Your task to perform on an android device: Go to ESPN.com Image 0: 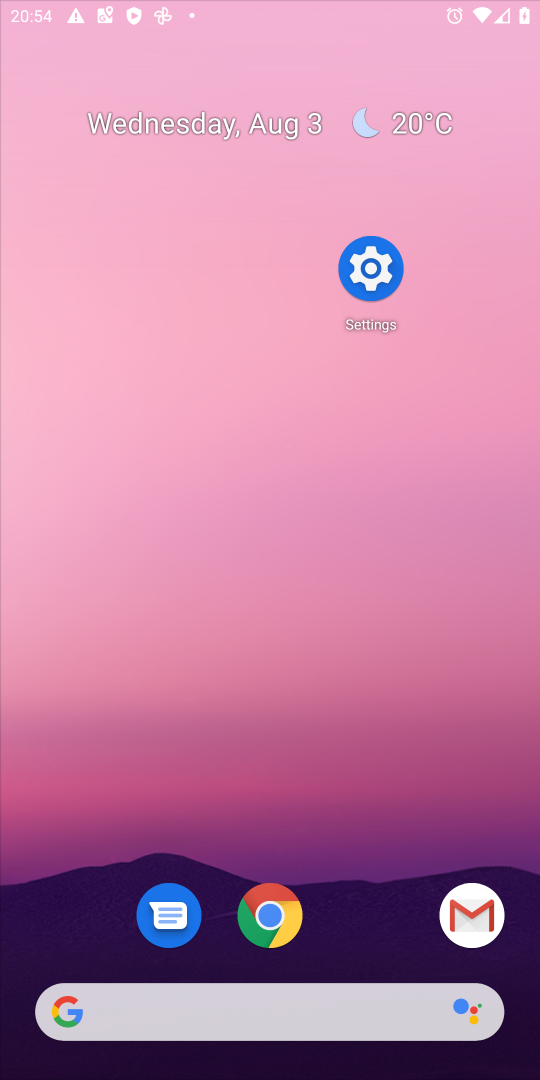
Step 0: press home button
Your task to perform on an android device: Go to ESPN.com Image 1: 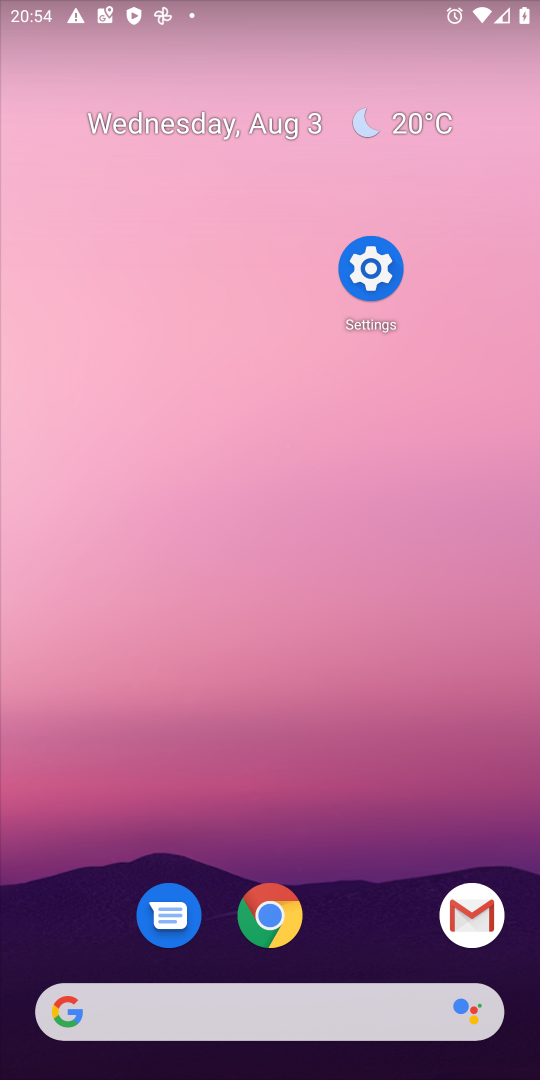
Step 1: drag from (329, 1017) to (232, 431)
Your task to perform on an android device: Go to ESPN.com Image 2: 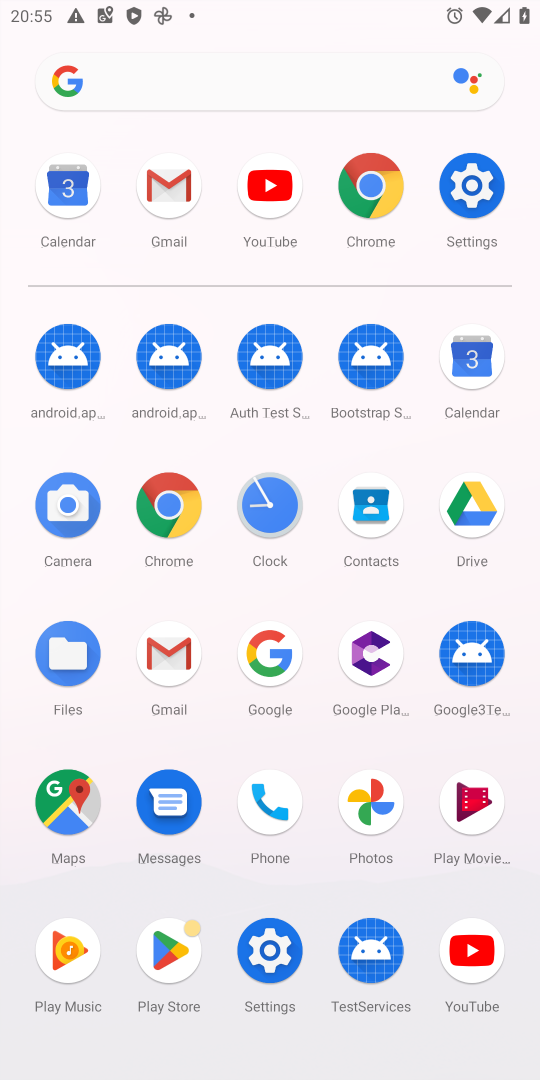
Step 2: click (378, 205)
Your task to perform on an android device: Go to ESPN.com Image 3: 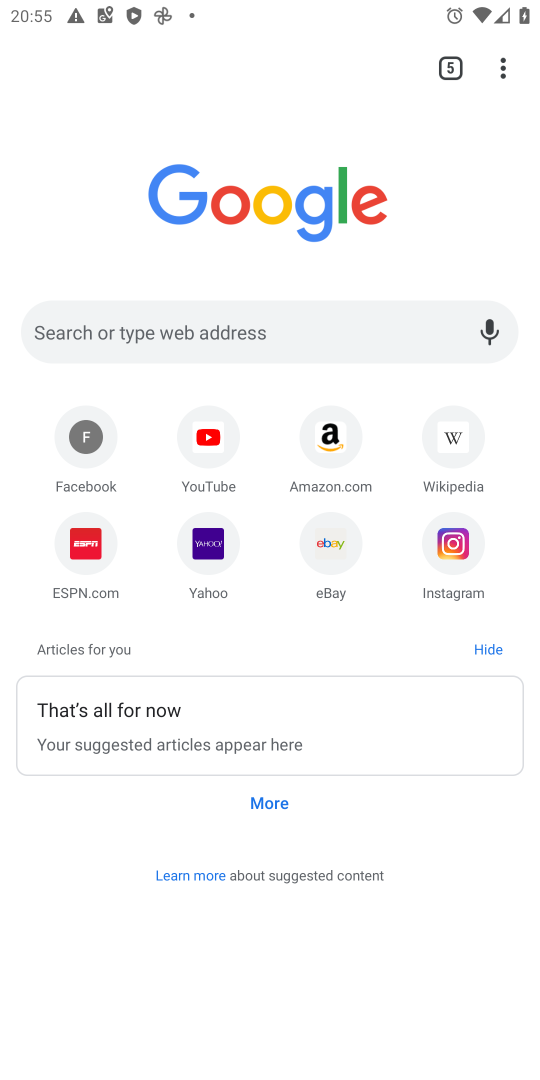
Step 3: click (120, 564)
Your task to perform on an android device: Go to ESPN.com Image 4: 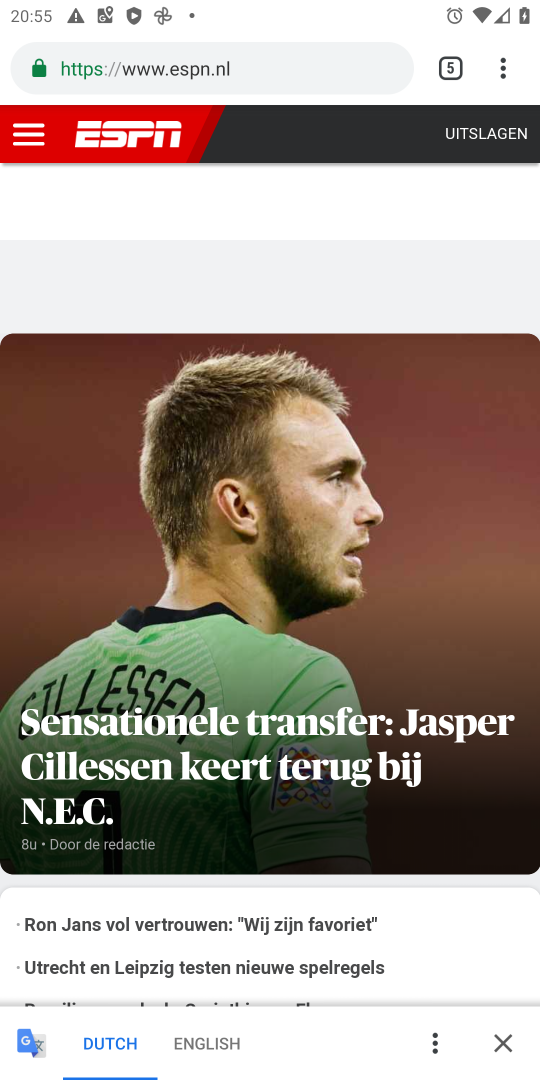
Step 4: task complete